Your task to perform on an android device: add a contact Image 0: 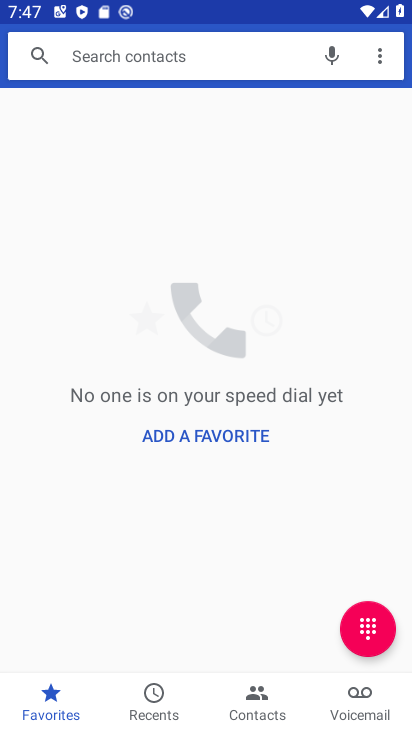
Step 0: press home button
Your task to perform on an android device: add a contact Image 1: 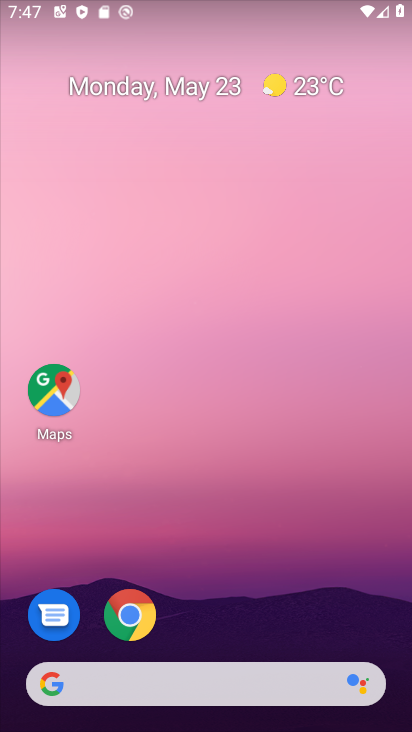
Step 1: drag from (239, 593) to (344, 202)
Your task to perform on an android device: add a contact Image 2: 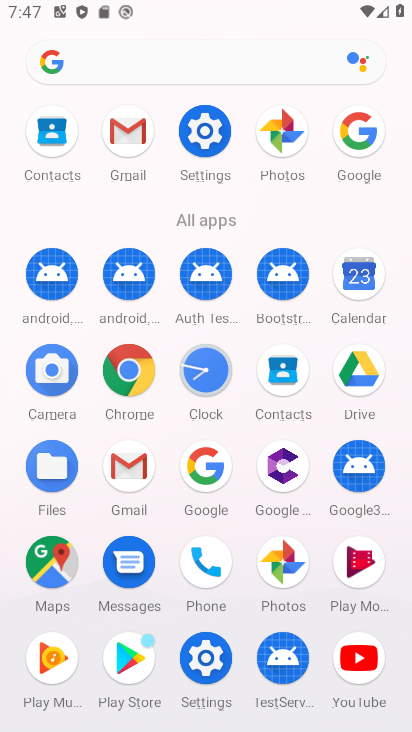
Step 2: click (279, 374)
Your task to perform on an android device: add a contact Image 3: 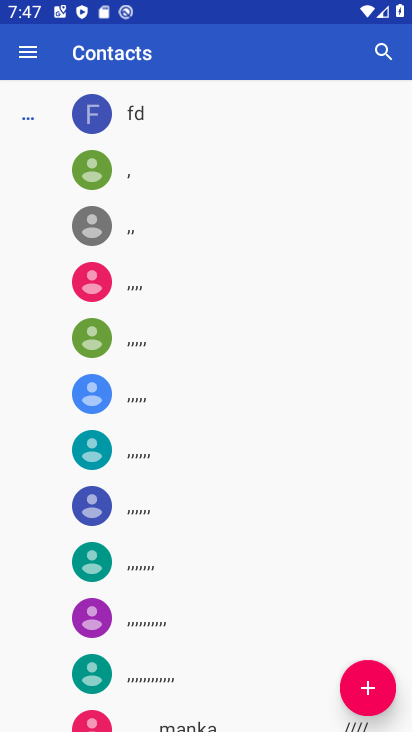
Step 3: click (362, 680)
Your task to perform on an android device: add a contact Image 4: 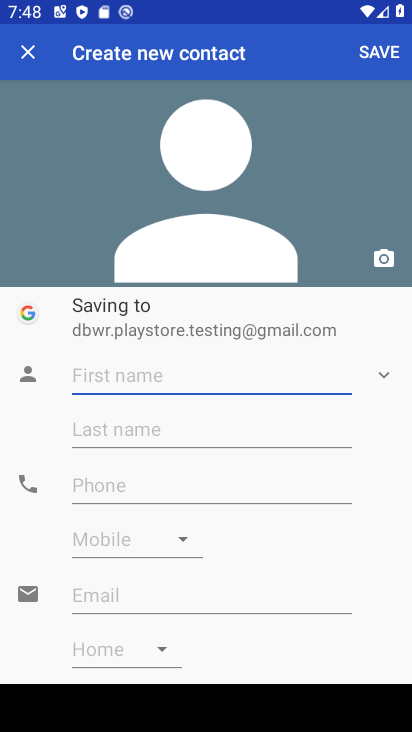
Step 4: type "Priyanka"
Your task to perform on an android device: add a contact Image 5: 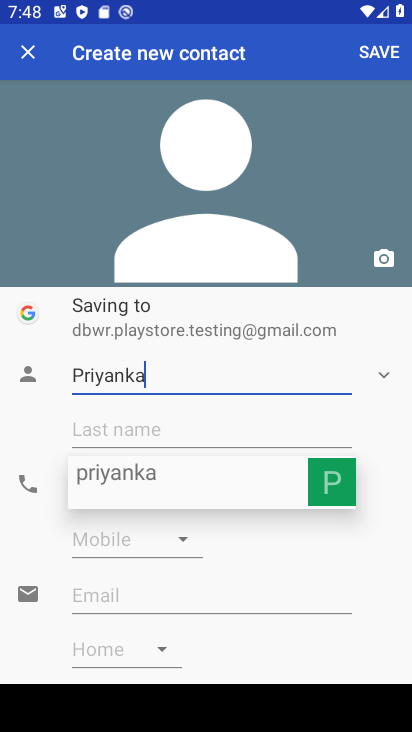
Step 5: click (114, 431)
Your task to perform on an android device: add a contact Image 6: 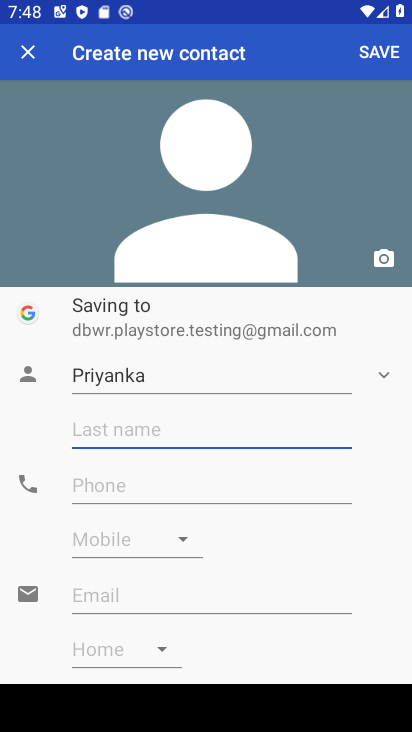
Step 6: type "Chandan"
Your task to perform on an android device: add a contact Image 7: 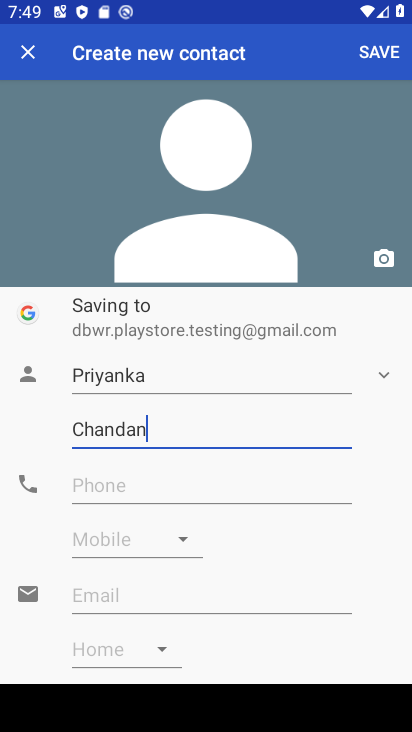
Step 7: click (177, 495)
Your task to perform on an android device: add a contact Image 8: 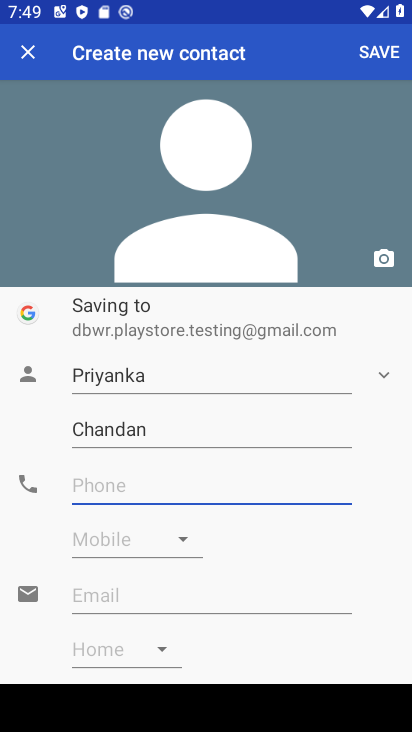
Step 8: type "9340662862"
Your task to perform on an android device: add a contact Image 9: 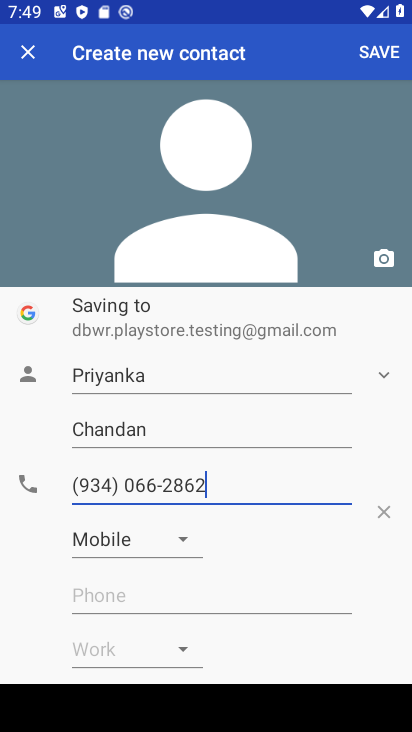
Step 9: click (372, 53)
Your task to perform on an android device: add a contact Image 10: 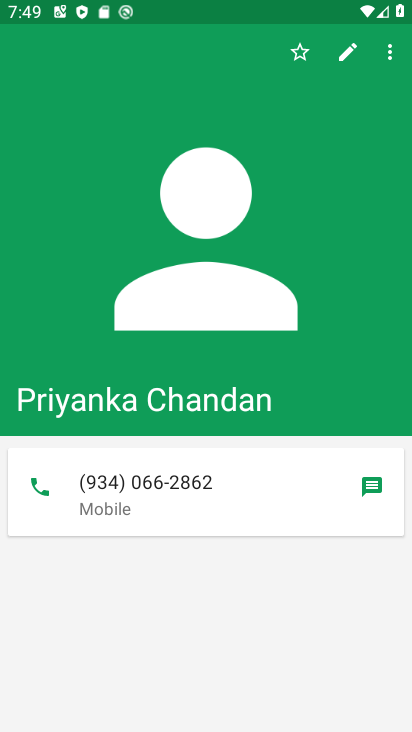
Step 10: task complete